Your task to perform on an android device: move an email to a new category in the gmail app Image 0: 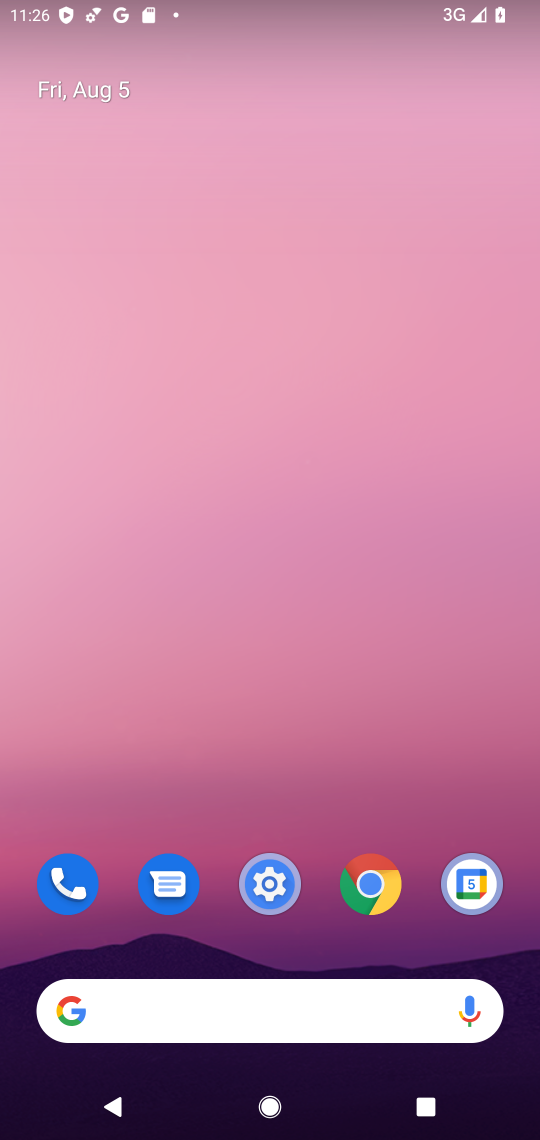
Step 0: drag from (355, 772) to (343, 27)
Your task to perform on an android device: move an email to a new category in the gmail app Image 1: 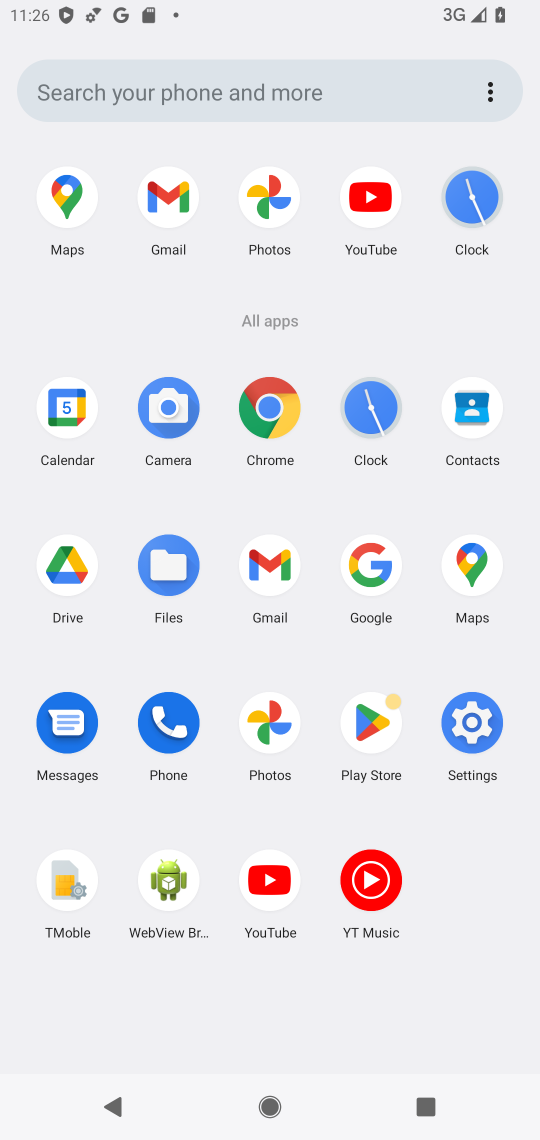
Step 1: click (269, 547)
Your task to perform on an android device: move an email to a new category in the gmail app Image 2: 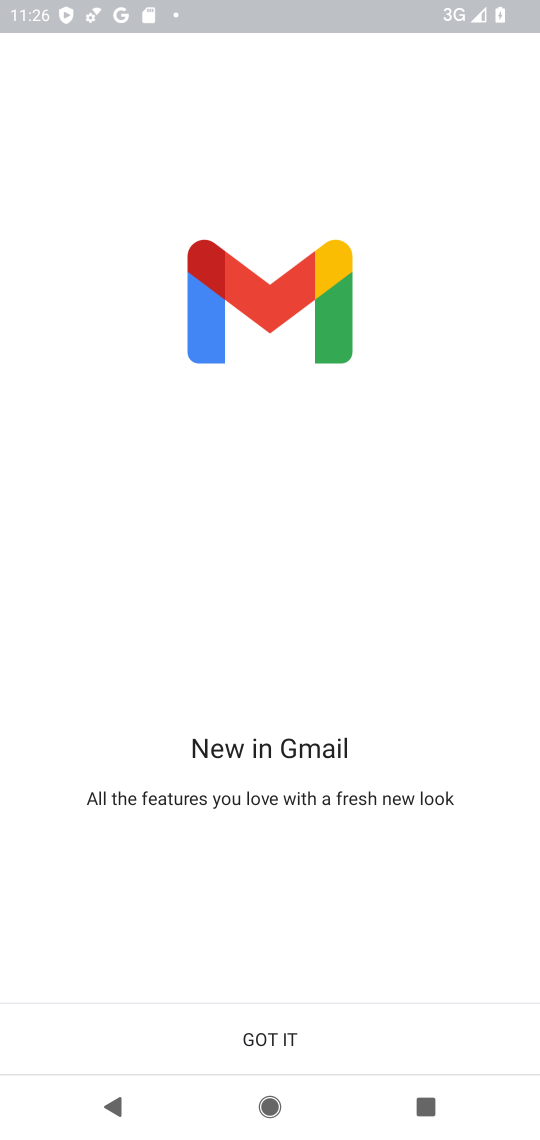
Step 2: click (350, 1046)
Your task to perform on an android device: move an email to a new category in the gmail app Image 3: 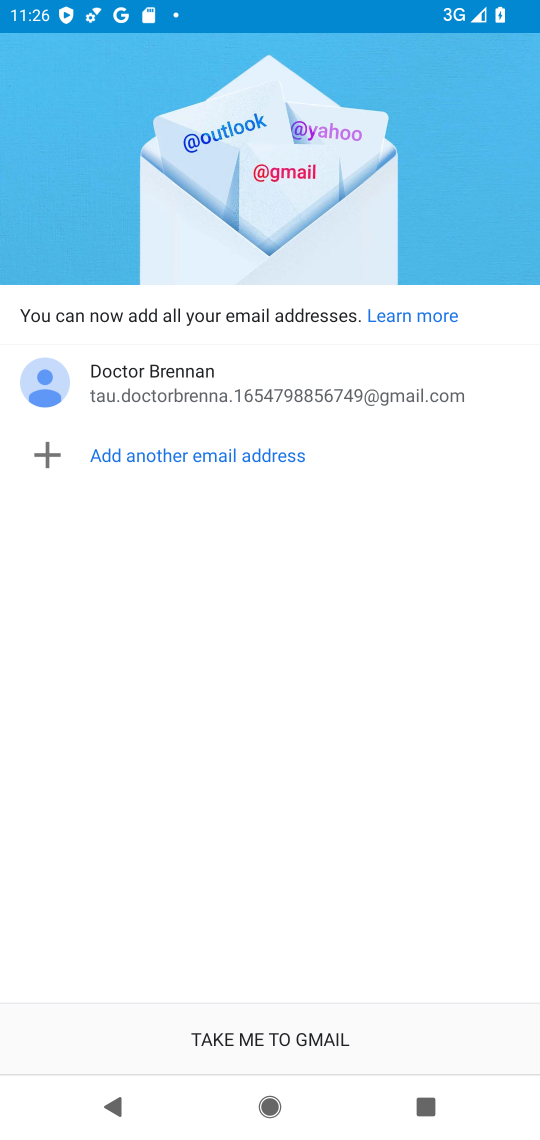
Step 3: click (249, 1044)
Your task to perform on an android device: move an email to a new category in the gmail app Image 4: 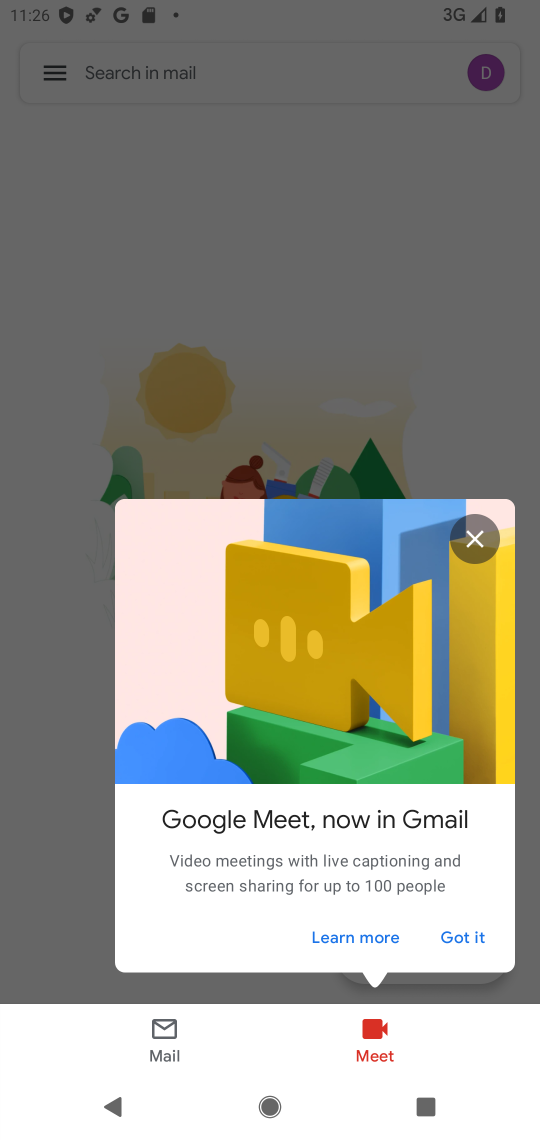
Step 4: click (476, 937)
Your task to perform on an android device: move an email to a new category in the gmail app Image 5: 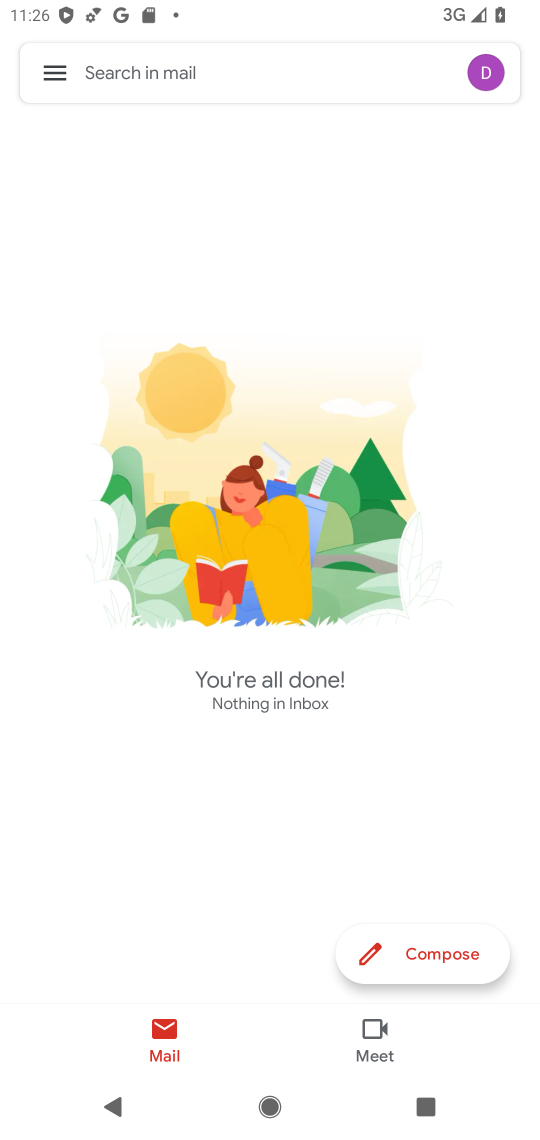
Step 5: click (50, 80)
Your task to perform on an android device: move an email to a new category in the gmail app Image 6: 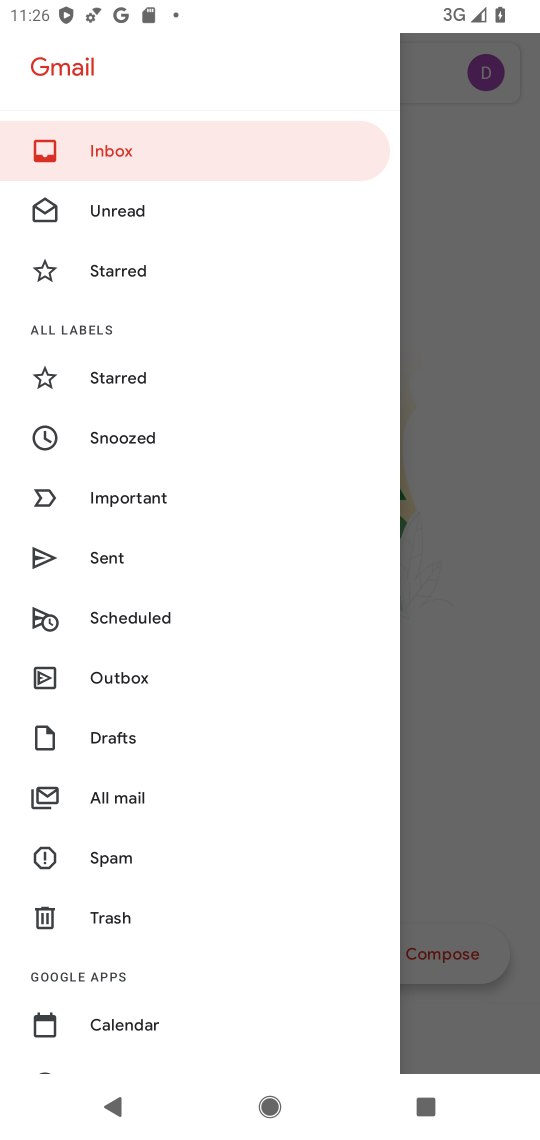
Step 6: drag from (126, 981) to (175, 491)
Your task to perform on an android device: move an email to a new category in the gmail app Image 7: 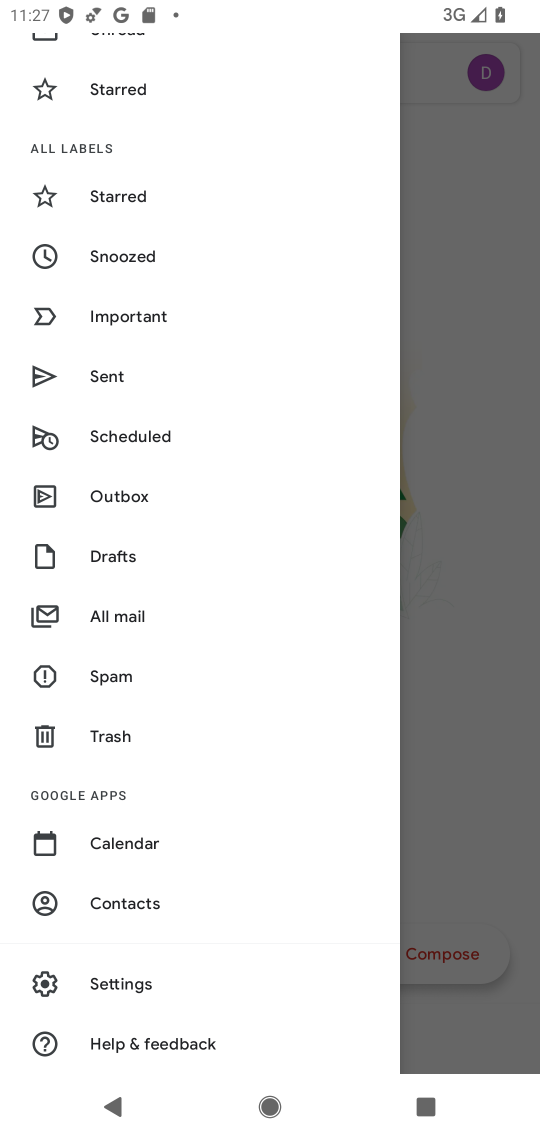
Step 7: click (98, 610)
Your task to perform on an android device: move an email to a new category in the gmail app Image 8: 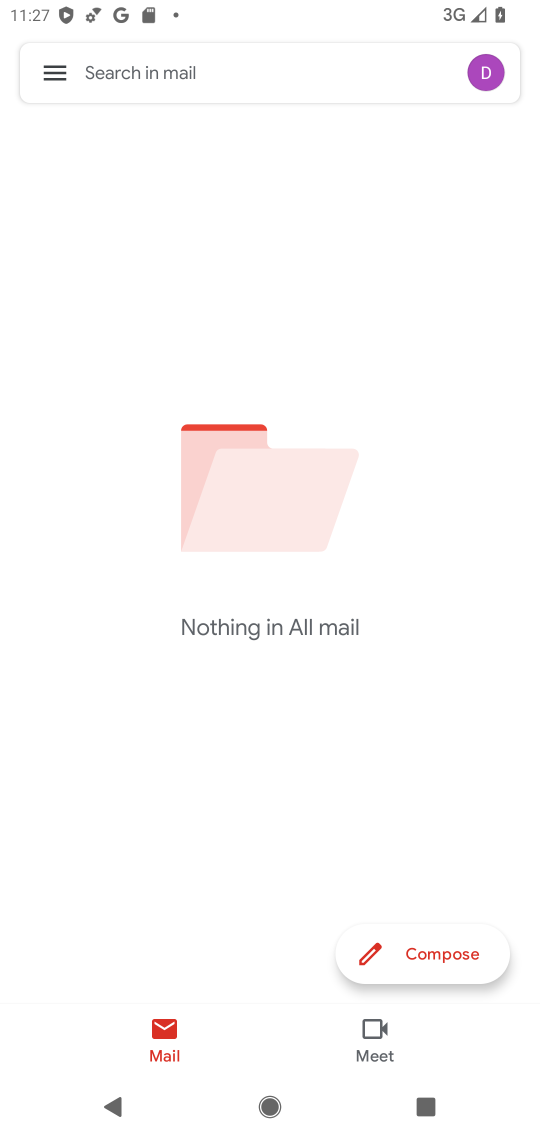
Step 8: task complete